Your task to perform on an android device: toggle priority inbox in the gmail app Image 0: 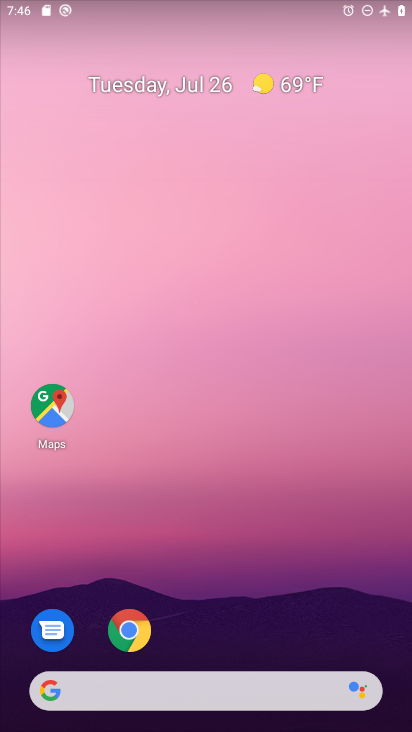
Step 0: drag from (147, 605) to (156, 179)
Your task to perform on an android device: toggle priority inbox in the gmail app Image 1: 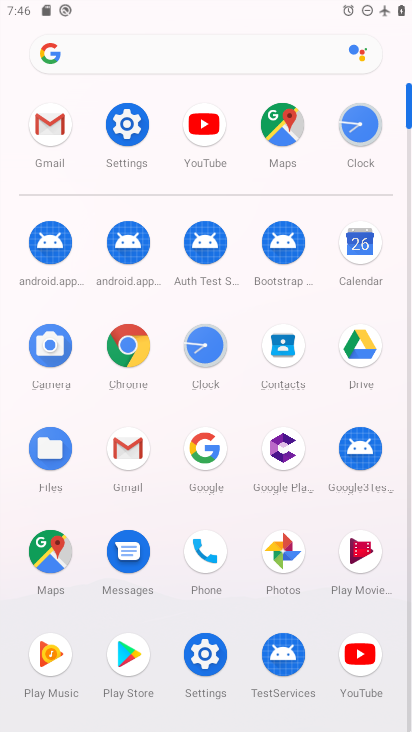
Step 1: click (139, 456)
Your task to perform on an android device: toggle priority inbox in the gmail app Image 2: 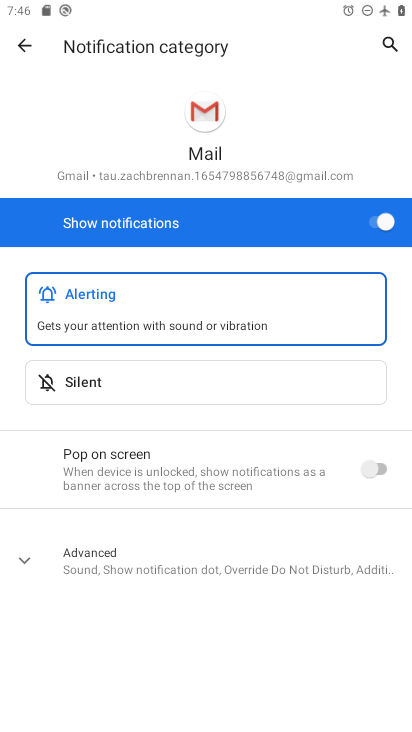
Step 2: press back button
Your task to perform on an android device: toggle priority inbox in the gmail app Image 3: 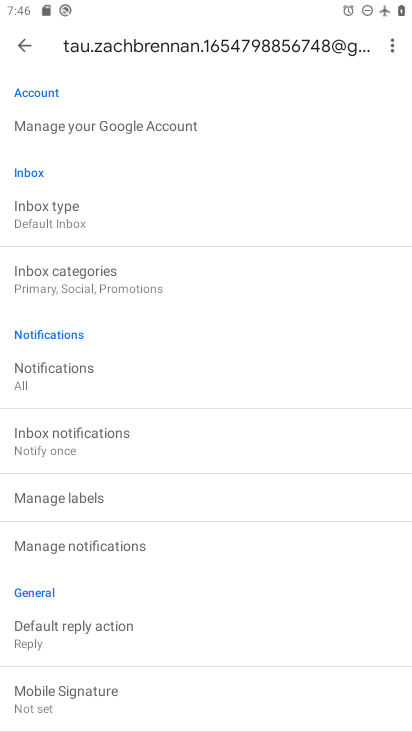
Step 3: click (141, 229)
Your task to perform on an android device: toggle priority inbox in the gmail app Image 4: 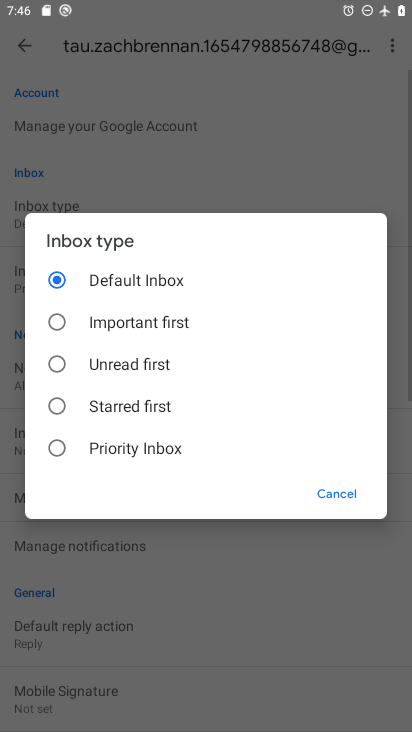
Step 4: click (138, 455)
Your task to perform on an android device: toggle priority inbox in the gmail app Image 5: 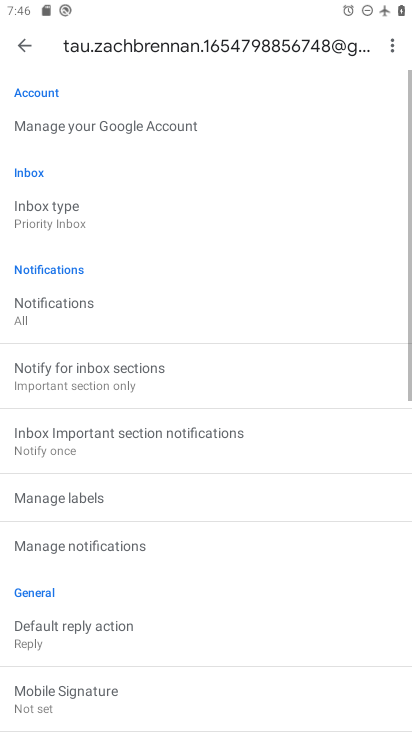
Step 5: task complete